Your task to perform on an android device: Do I have any events today? Image 0: 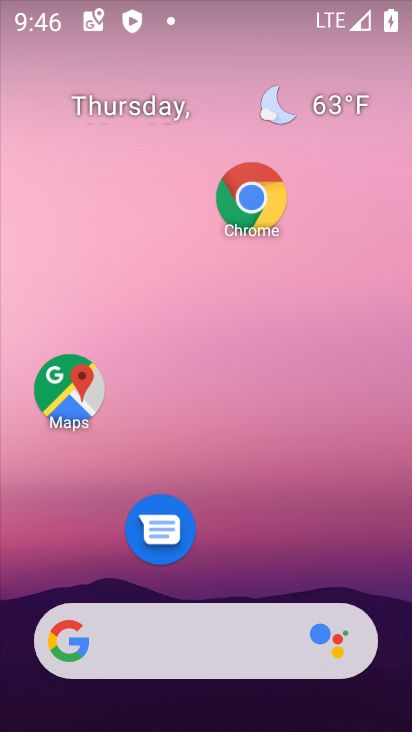
Step 0: drag from (245, 594) to (235, 163)
Your task to perform on an android device: Do I have any events today? Image 1: 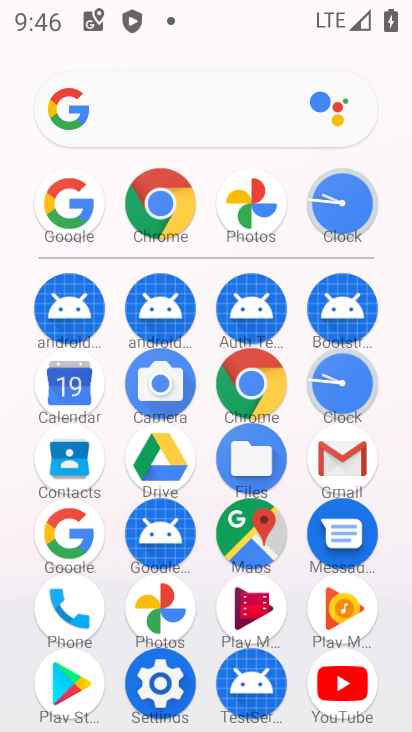
Step 1: click (62, 405)
Your task to perform on an android device: Do I have any events today? Image 2: 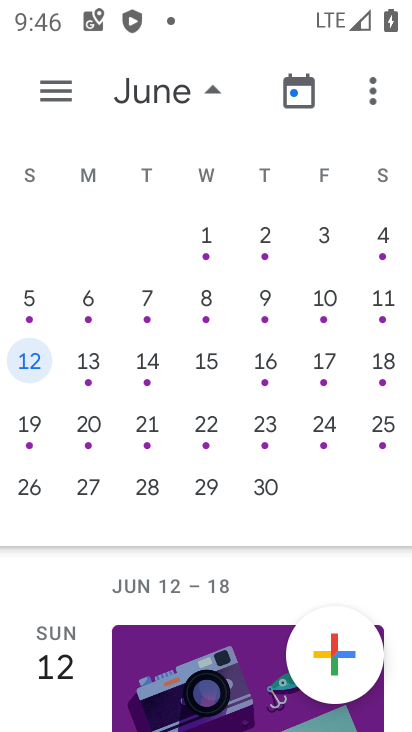
Step 2: drag from (137, 397) to (390, 189)
Your task to perform on an android device: Do I have any events today? Image 3: 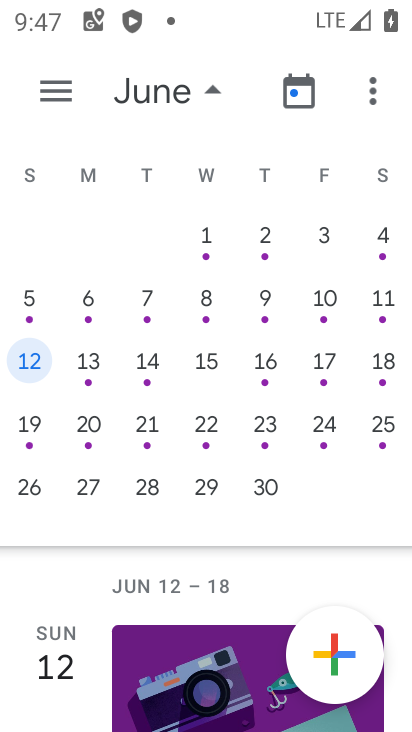
Step 3: drag from (55, 446) to (409, 427)
Your task to perform on an android device: Do I have any events today? Image 4: 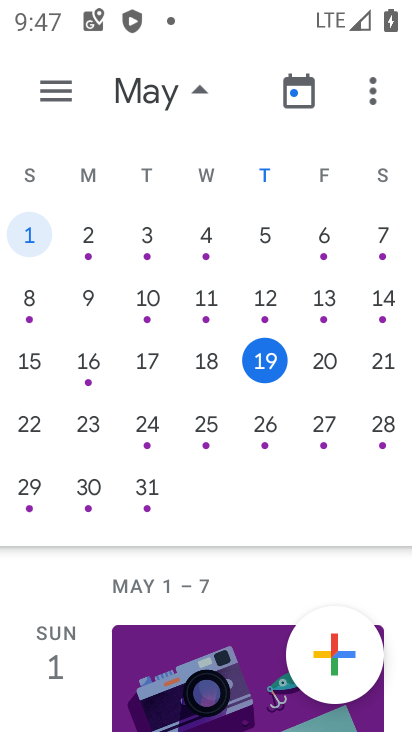
Step 4: click (260, 367)
Your task to perform on an android device: Do I have any events today? Image 5: 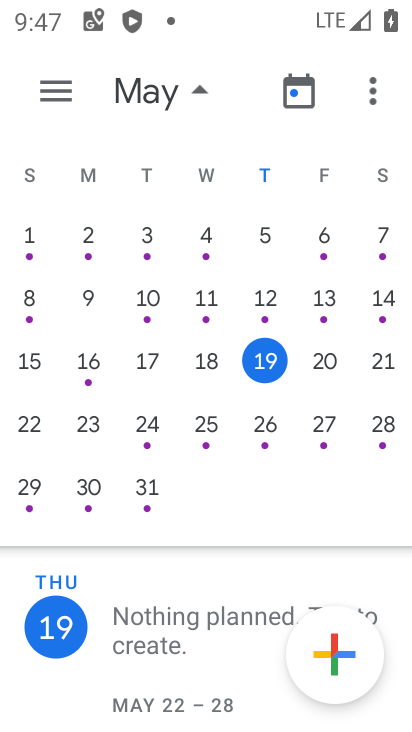
Step 5: task complete